Your task to perform on an android device: What time is it in Los Angeles? Image 0: 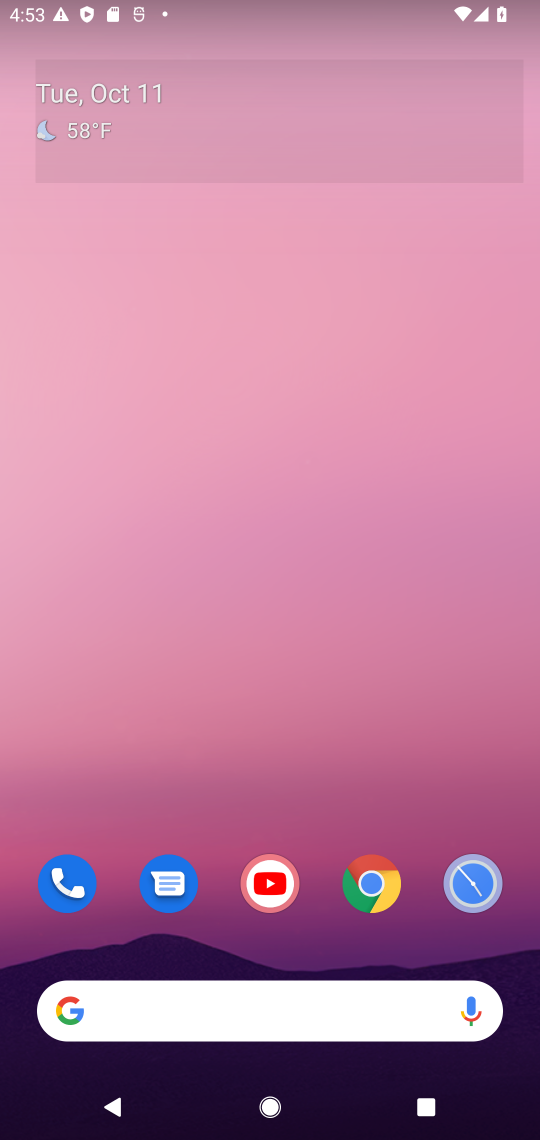
Step 0: drag from (316, 941) to (308, 58)
Your task to perform on an android device: What time is it in Los Angeles? Image 1: 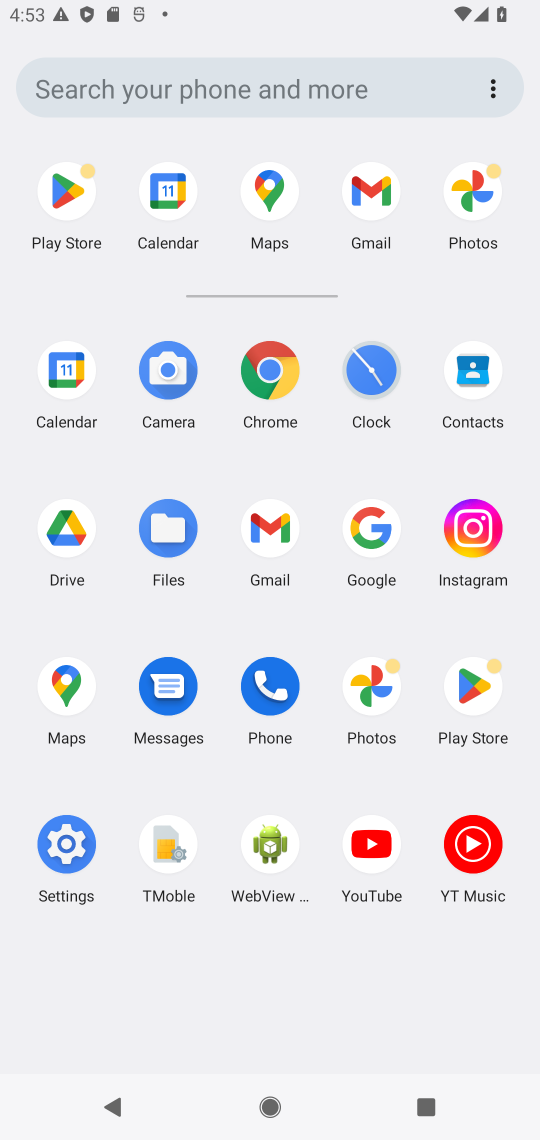
Step 1: click (267, 356)
Your task to perform on an android device: What time is it in Los Angeles? Image 2: 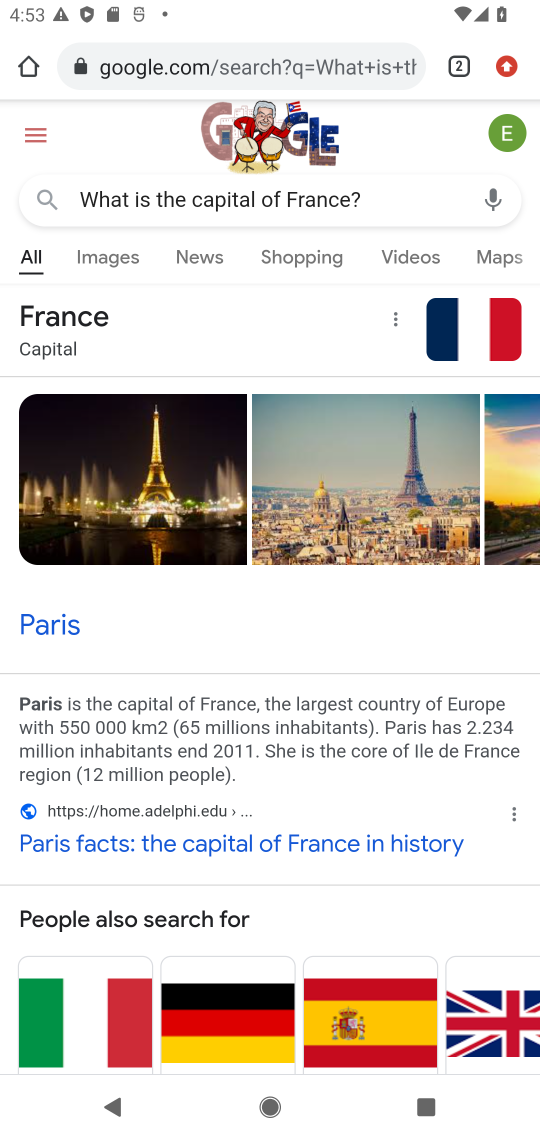
Step 2: click (247, 60)
Your task to perform on an android device: What time is it in Los Angeles? Image 3: 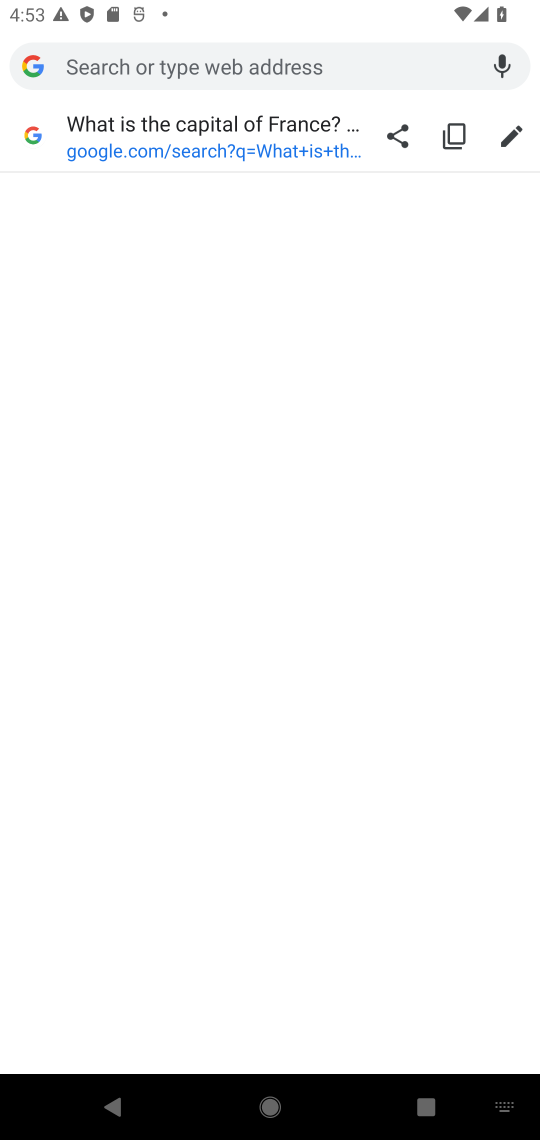
Step 3: type "What time is it in Los Angeles?"
Your task to perform on an android device: What time is it in Los Angeles? Image 4: 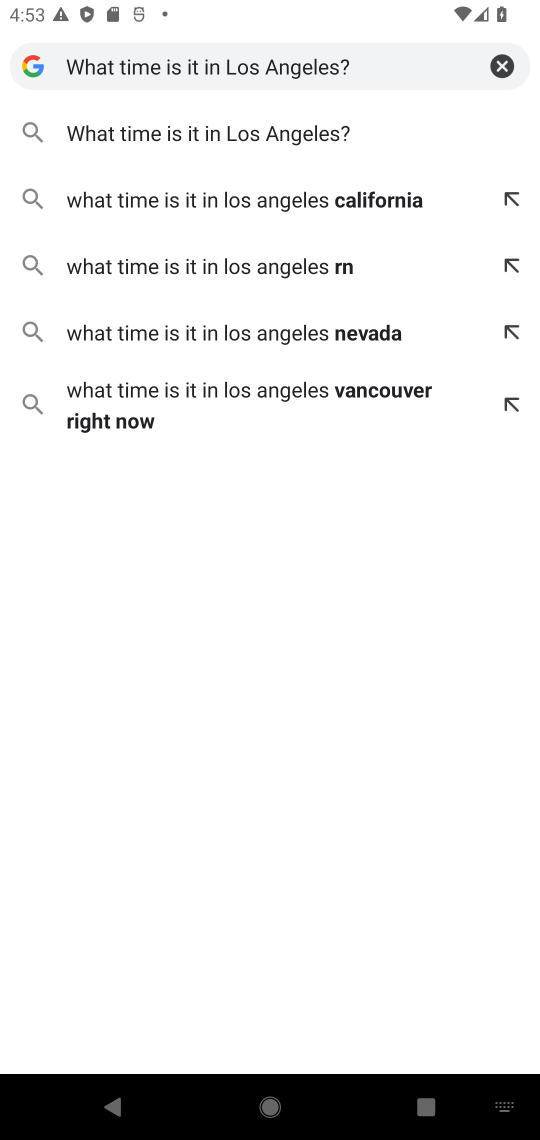
Step 4: press enter
Your task to perform on an android device: What time is it in Los Angeles? Image 5: 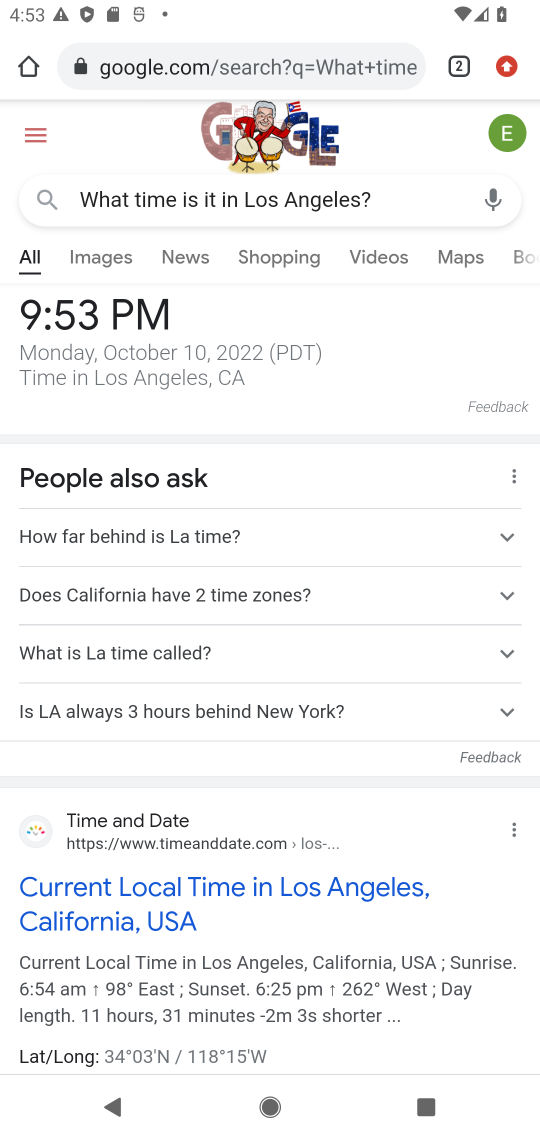
Step 5: task complete